Your task to perform on an android device: Open Google Chrome Image 0: 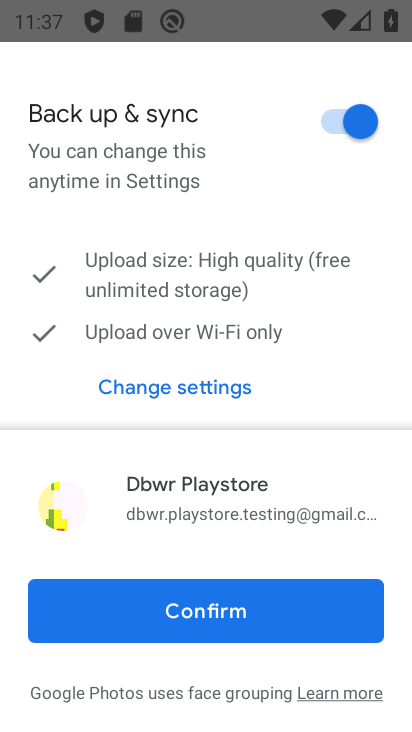
Step 0: press home button
Your task to perform on an android device: Open Google Chrome Image 1: 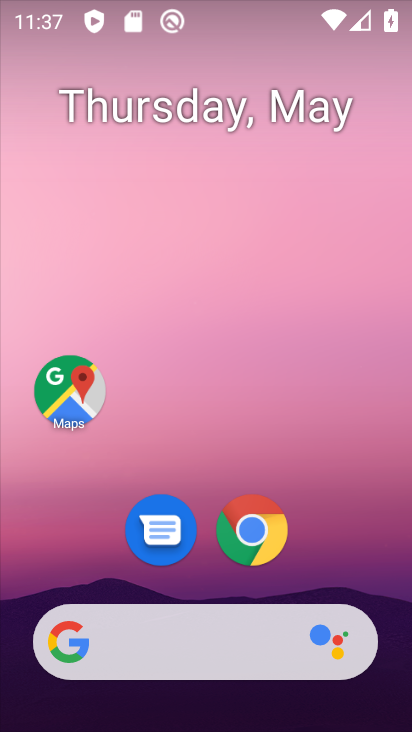
Step 1: click (251, 538)
Your task to perform on an android device: Open Google Chrome Image 2: 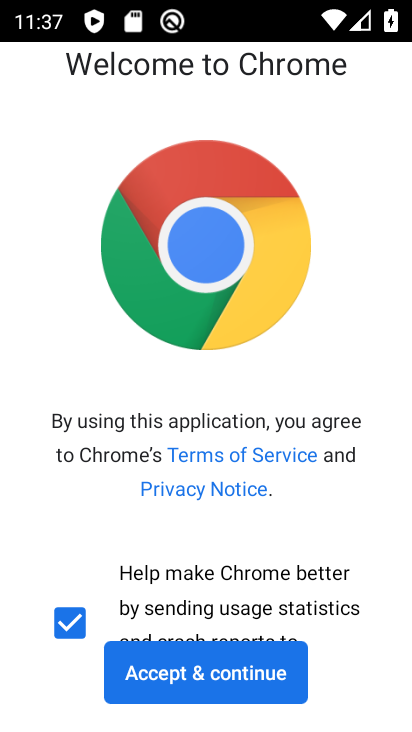
Step 2: click (167, 672)
Your task to perform on an android device: Open Google Chrome Image 3: 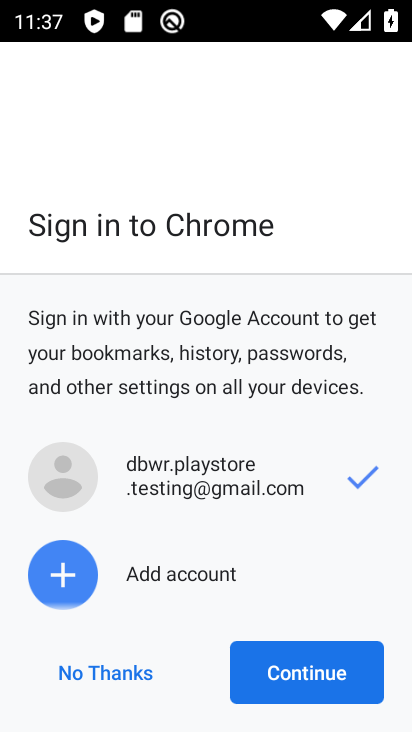
Step 3: click (278, 672)
Your task to perform on an android device: Open Google Chrome Image 4: 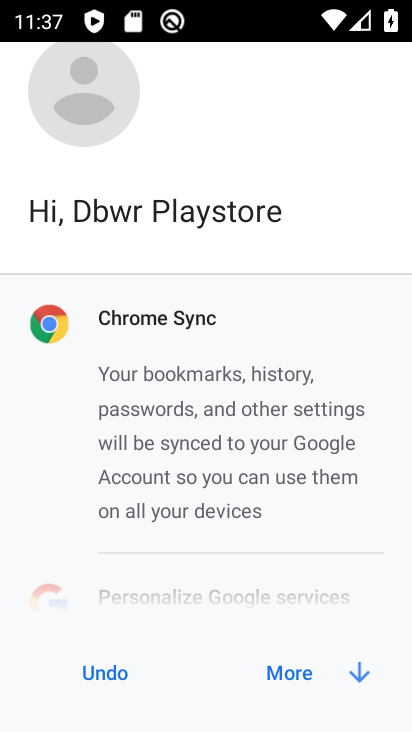
Step 4: task complete